Your task to perform on an android device: Open Google Chrome and click the shortcut for Amazon.com Image 0: 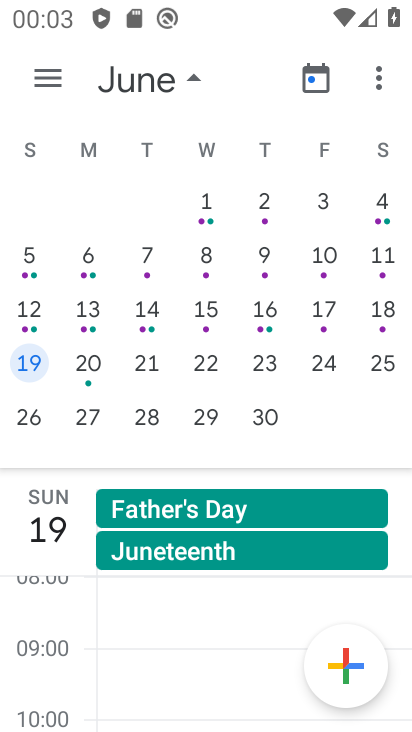
Step 0: press home button
Your task to perform on an android device: Open Google Chrome and click the shortcut for Amazon.com Image 1: 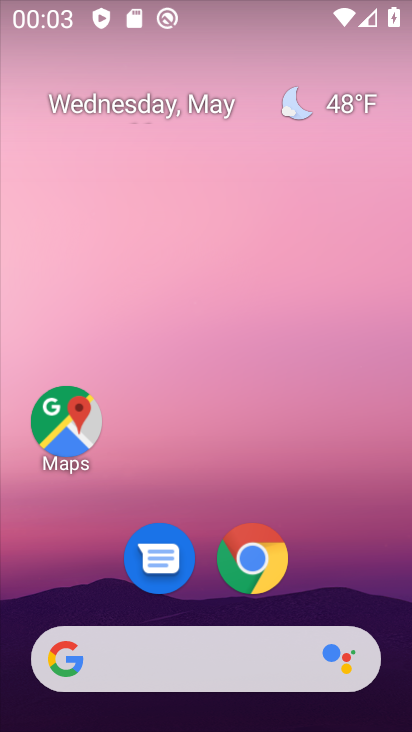
Step 1: drag from (386, 570) to (381, 200)
Your task to perform on an android device: Open Google Chrome and click the shortcut for Amazon.com Image 2: 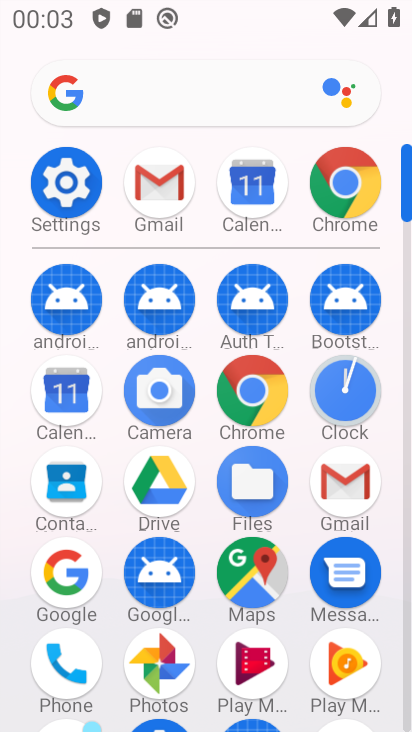
Step 2: drag from (302, 603) to (308, 358)
Your task to perform on an android device: Open Google Chrome and click the shortcut for Amazon.com Image 3: 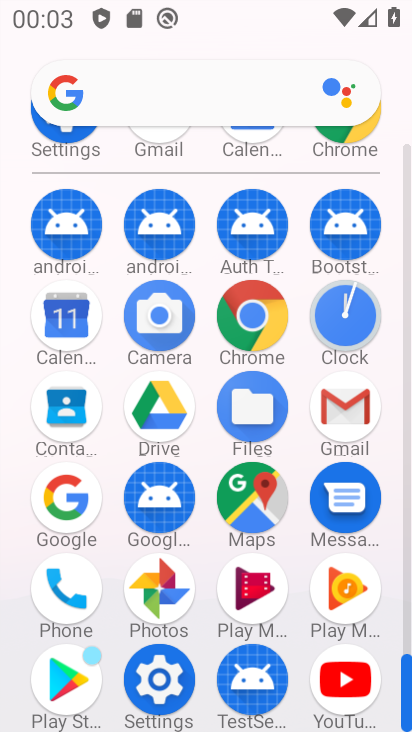
Step 3: drag from (300, 633) to (310, 300)
Your task to perform on an android device: Open Google Chrome and click the shortcut for Amazon.com Image 4: 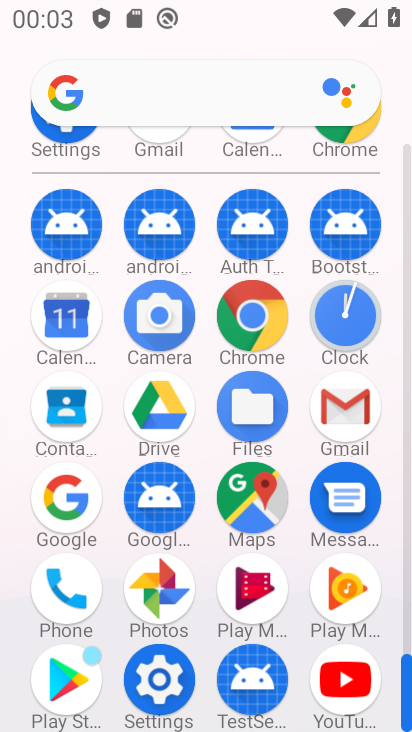
Step 4: drag from (304, 246) to (313, 572)
Your task to perform on an android device: Open Google Chrome and click the shortcut for Amazon.com Image 5: 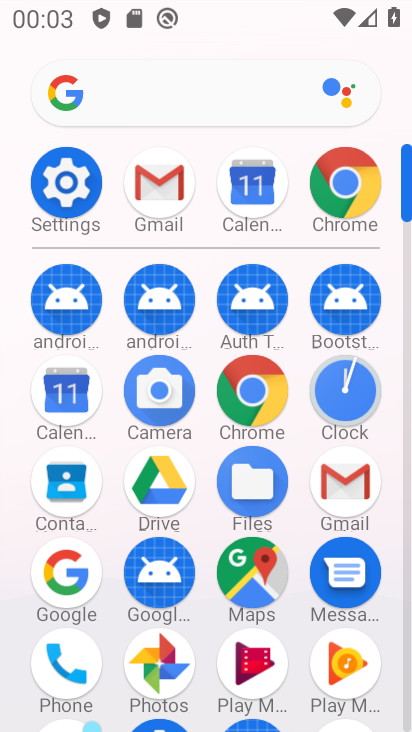
Step 5: click (274, 359)
Your task to perform on an android device: Open Google Chrome and click the shortcut for Amazon.com Image 6: 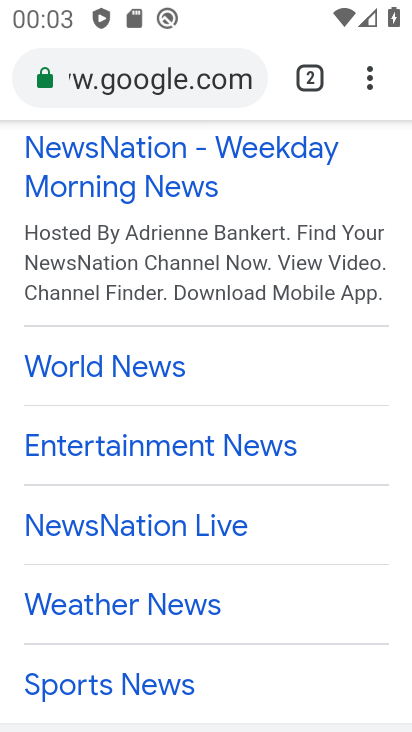
Step 6: drag from (244, 218) to (247, 538)
Your task to perform on an android device: Open Google Chrome and click the shortcut for Amazon.com Image 7: 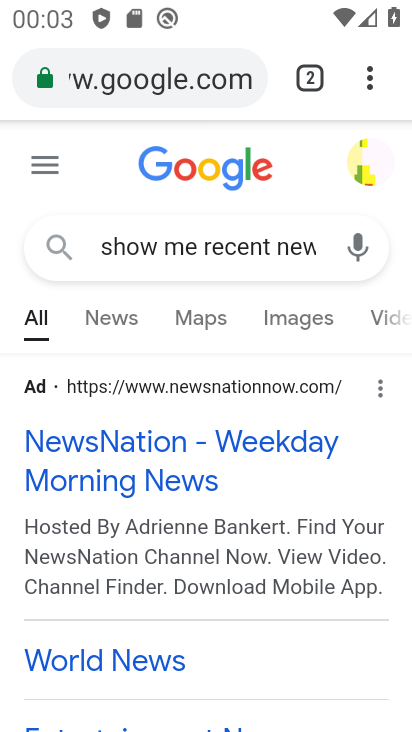
Step 7: click (319, 87)
Your task to perform on an android device: Open Google Chrome and click the shortcut for Amazon.com Image 8: 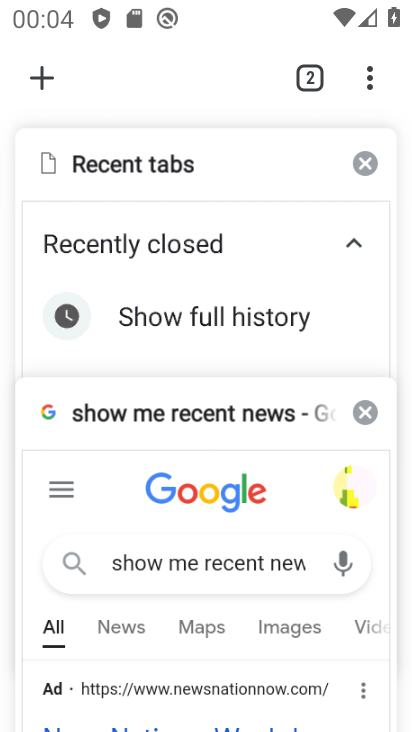
Step 8: click (32, 78)
Your task to perform on an android device: Open Google Chrome and click the shortcut for Amazon.com Image 9: 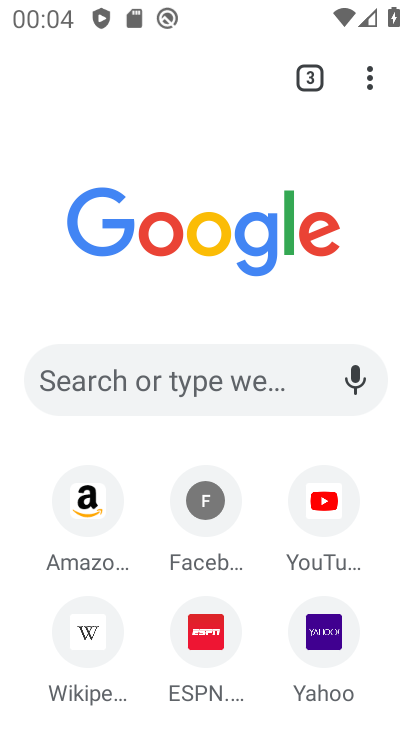
Step 9: click (163, 382)
Your task to perform on an android device: Open Google Chrome and click the shortcut for Amazon.com Image 10: 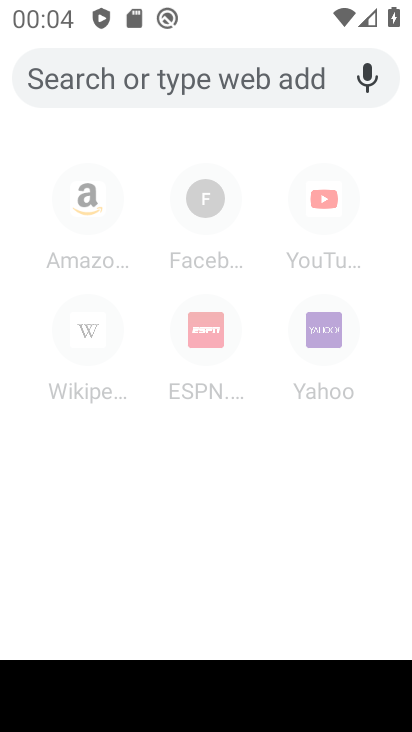
Step 10: click (98, 221)
Your task to perform on an android device: Open Google Chrome and click the shortcut for Amazon.com Image 11: 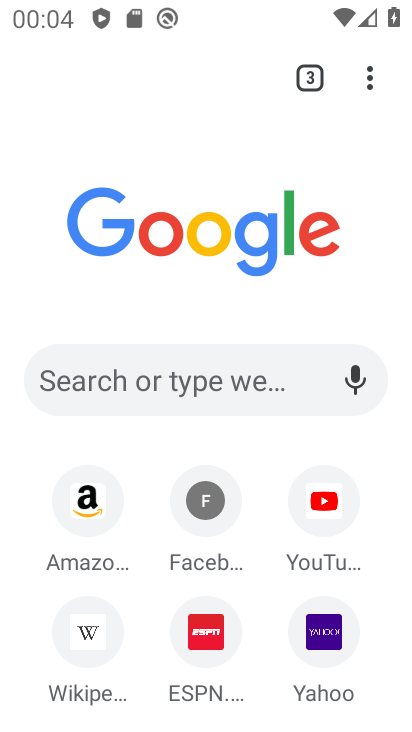
Step 11: click (78, 505)
Your task to perform on an android device: Open Google Chrome and click the shortcut for Amazon.com Image 12: 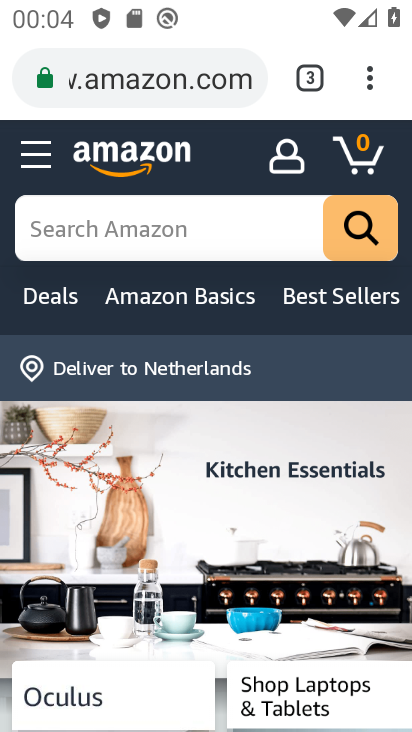
Step 12: task complete